Your task to perform on an android device: Toggle the flashlight Image 0: 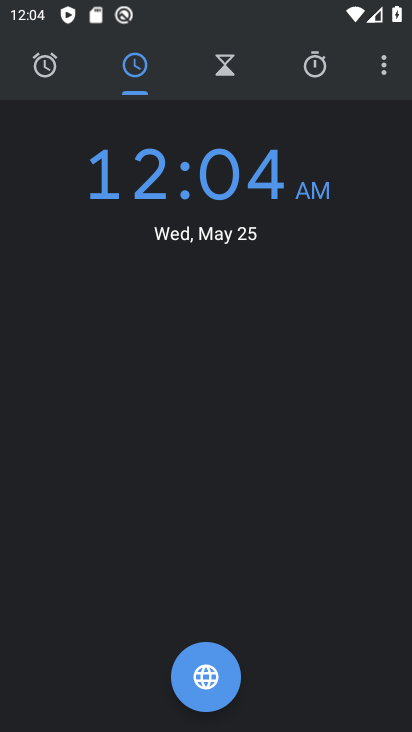
Step 0: press home button
Your task to perform on an android device: Toggle the flashlight Image 1: 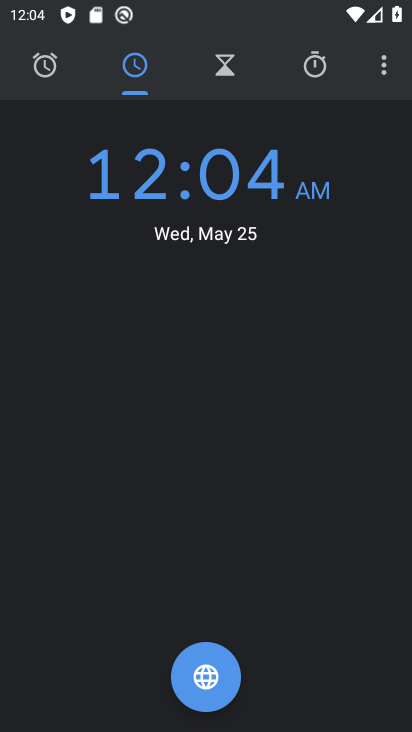
Step 1: press home button
Your task to perform on an android device: Toggle the flashlight Image 2: 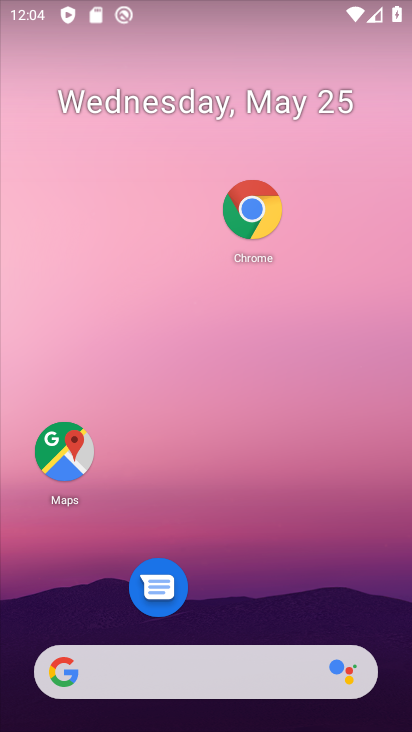
Step 2: drag from (217, 622) to (287, 114)
Your task to perform on an android device: Toggle the flashlight Image 3: 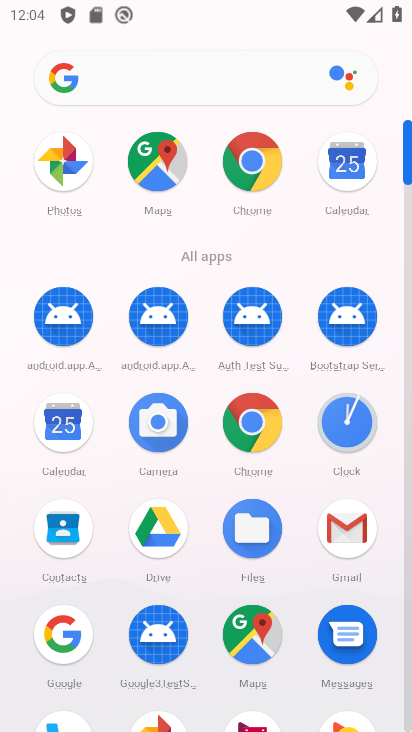
Step 3: drag from (215, 570) to (262, 193)
Your task to perform on an android device: Toggle the flashlight Image 4: 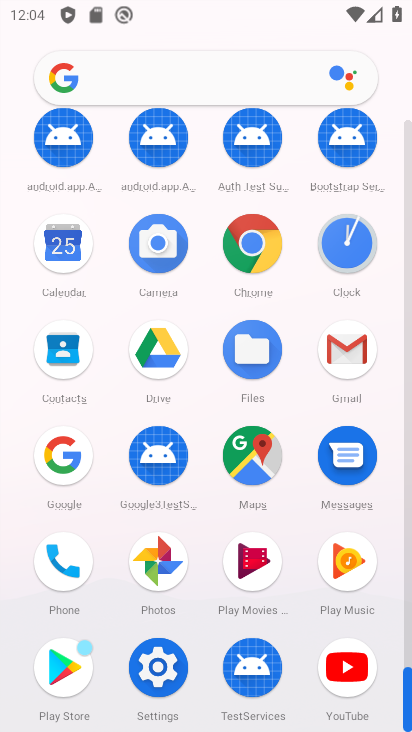
Step 4: click (156, 664)
Your task to perform on an android device: Toggle the flashlight Image 5: 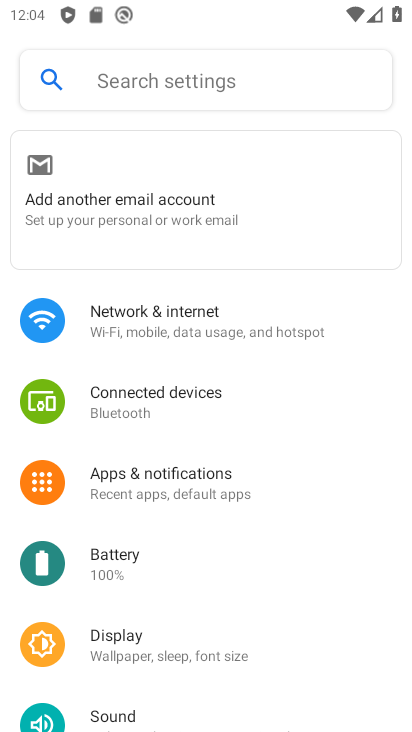
Step 5: click (167, 68)
Your task to perform on an android device: Toggle the flashlight Image 6: 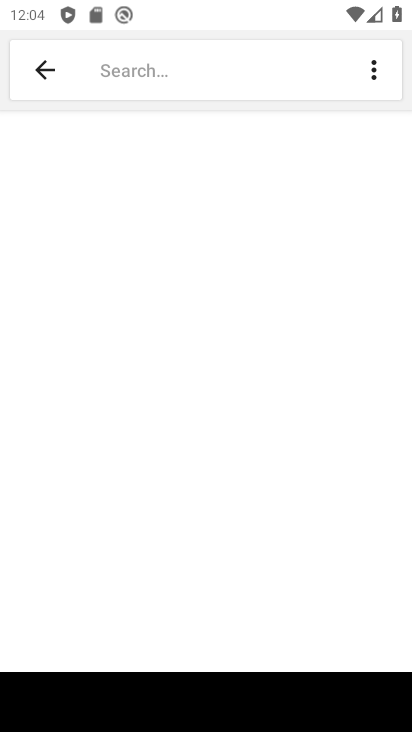
Step 6: type "flashlight"
Your task to perform on an android device: Toggle the flashlight Image 7: 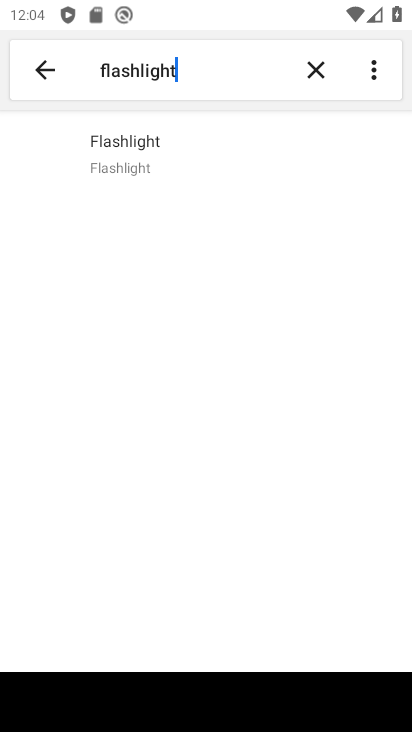
Step 7: click (153, 155)
Your task to perform on an android device: Toggle the flashlight Image 8: 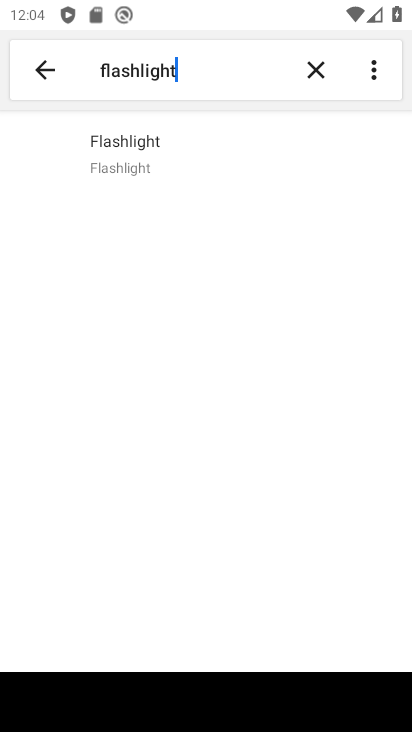
Step 8: task complete